Your task to perform on an android device: manage bookmarks in the chrome app Image 0: 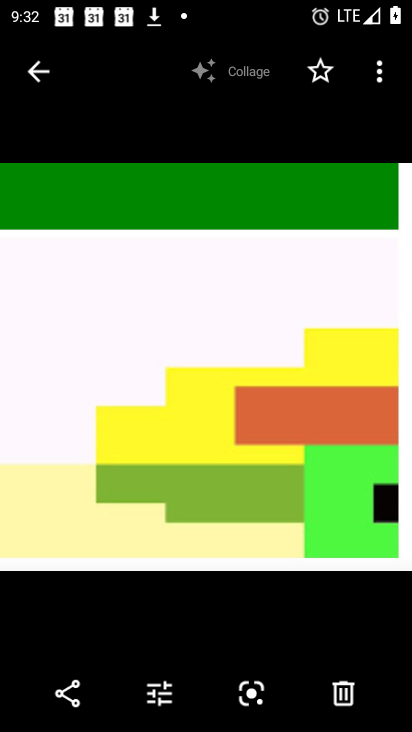
Step 0: press home button
Your task to perform on an android device: manage bookmarks in the chrome app Image 1: 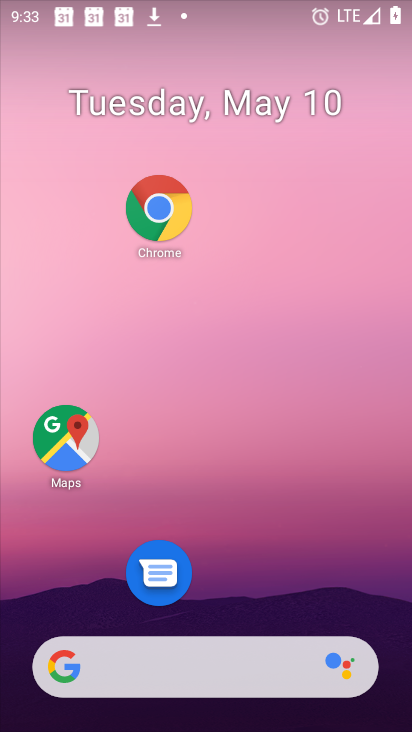
Step 1: drag from (255, 694) to (372, 112)
Your task to perform on an android device: manage bookmarks in the chrome app Image 2: 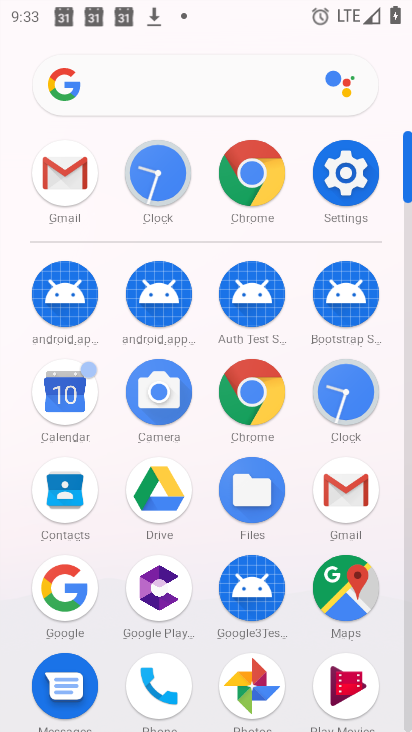
Step 2: click (248, 399)
Your task to perform on an android device: manage bookmarks in the chrome app Image 3: 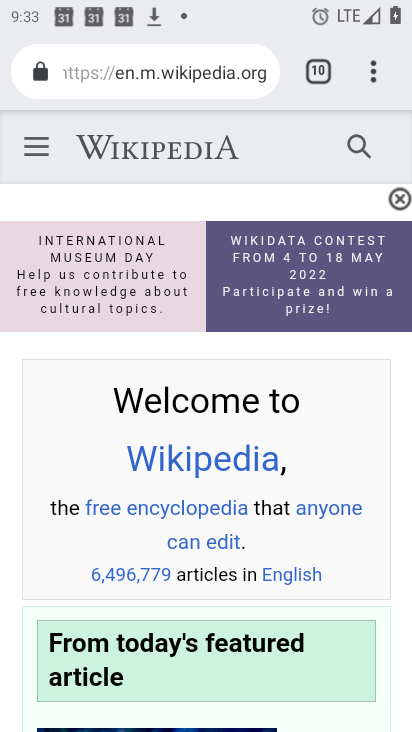
Step 3: click (375, 86)
Your task to perform on an android device: manage bookmarks in the chrome app Image 4: 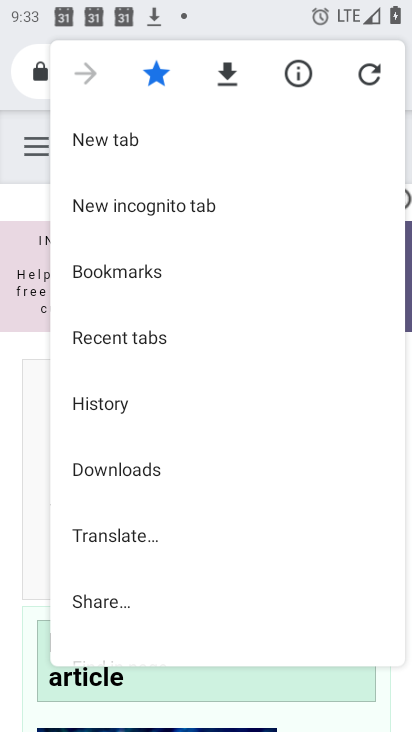
Step 4: click (127, 267)
Your task to perform on an android device: manage bookmarks in the chrome app Image 5: 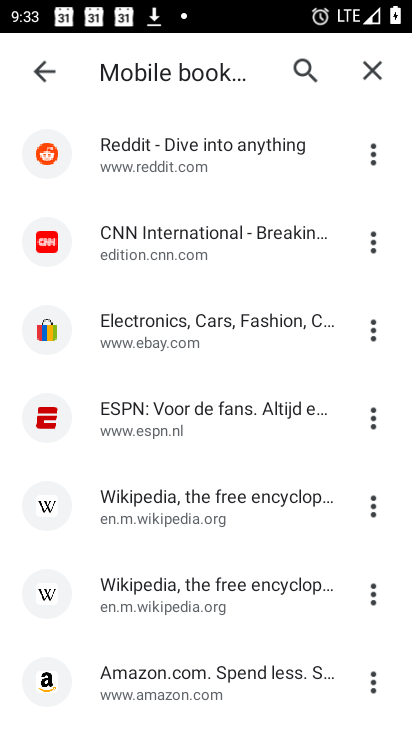
Step 5: task complete